Your task to perform on an android device: set the stopwatch Image 0: 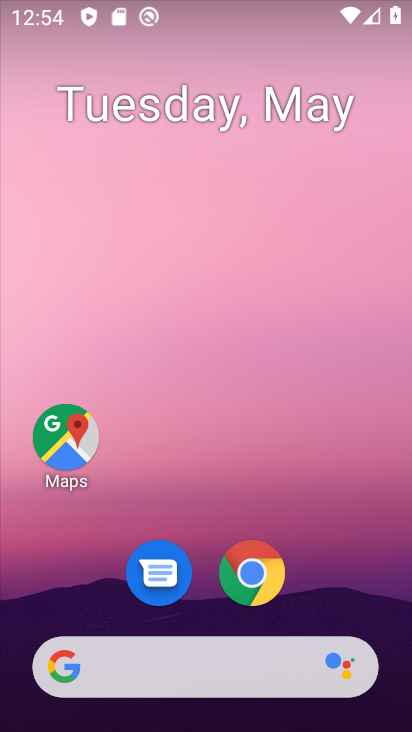
Step 0: drag from (190, 552) to (214, 32)
Your task to perform on an android device: set the stopwatch Image 1: 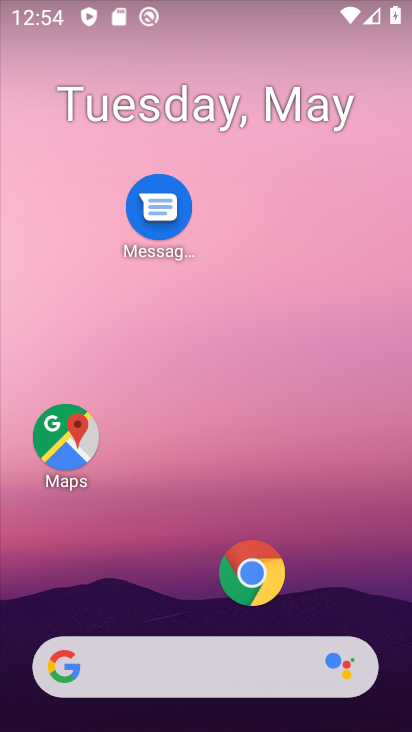
Step 1: drag from (206, 625) to (301, 4)
Your task to perform on an android device: set the stopwatch Image 2: 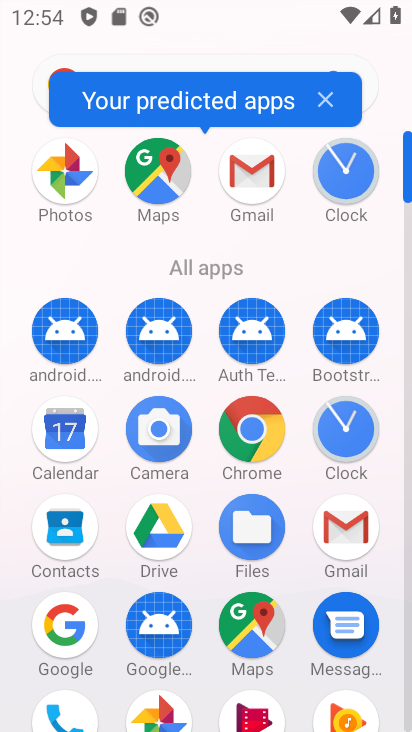
Step 2: click (355, 183)
Your task to perform on an android device: set the stopwatch Image 3: 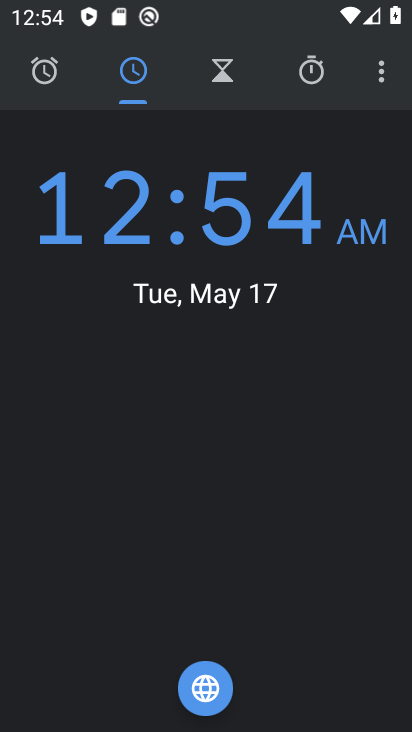
Step 3: click (309, 87)
Your task to perform on an android device: set the stopwatch Image 4: 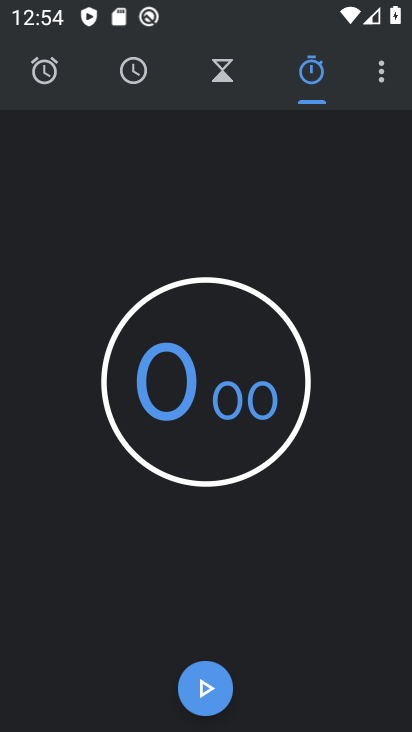
Step 4: click (204, 676)
Your task to perform on an android device: set the stopwatch Image 5: 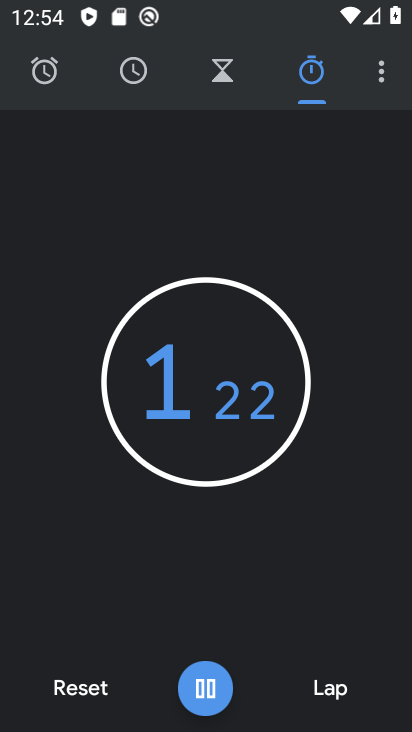
Step 5: task complete